Your task to perform on an android device: Clear the cart on walmart.com. Add "lenovo thinkpad" to the cart on walmart.com Image 0: 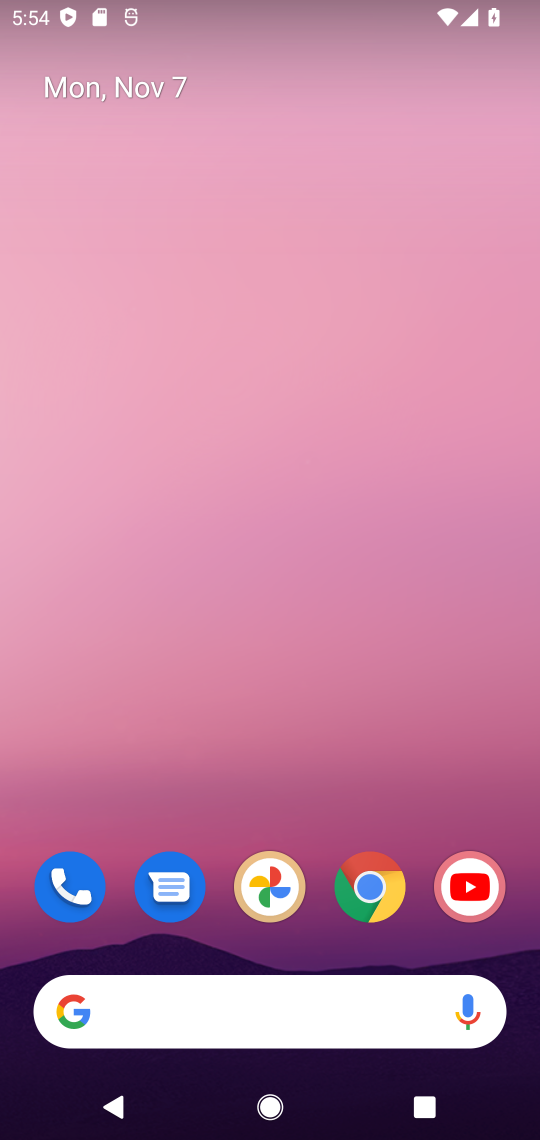
Step 0: click (369, 893)
Your task to perform on an android device: Clear the cart on walmart.com. Add "lenovo thinkpad" to the cart on walmart.com Image 1: 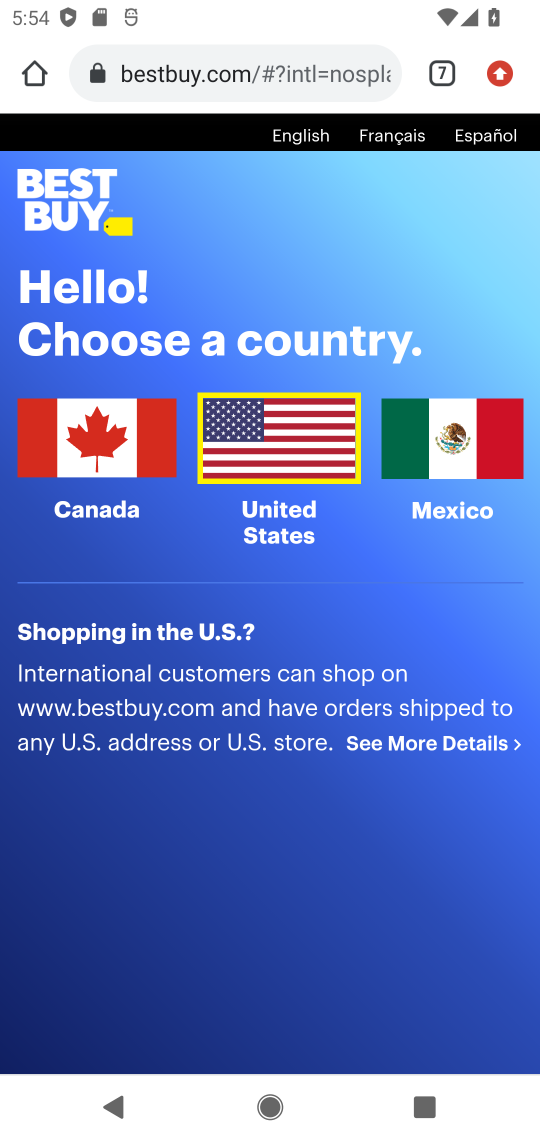
Step 1: click (443, 69)
Your task to perform on an android device: Clear the cart on walmart.com. Add "lenovo thinkpad" to the cart on walmart.com Image 2: 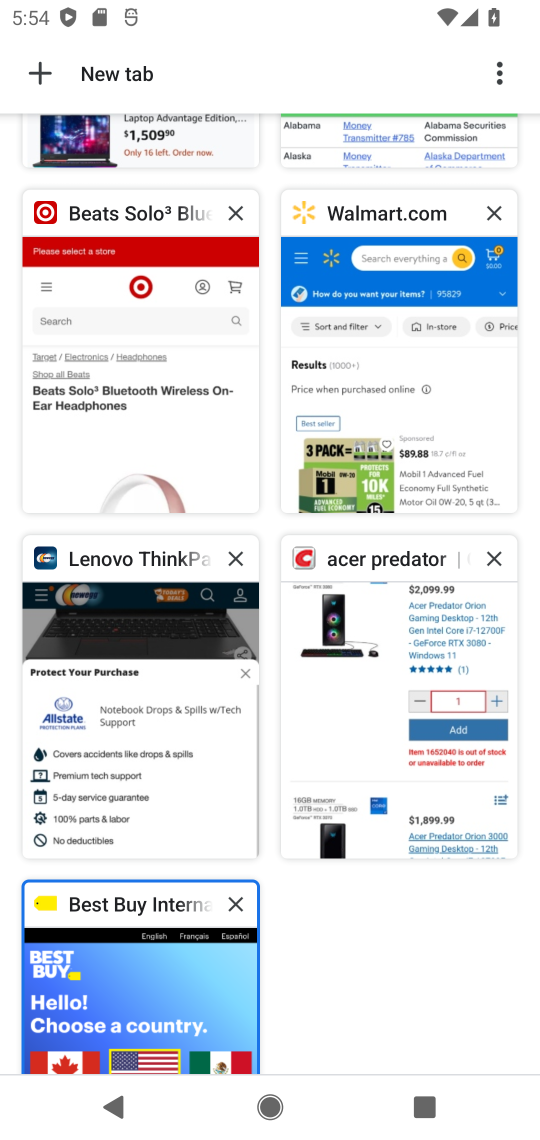
Step 2: click (411, 313)
Your task to perform on an android device: Clear the cart on walmart.com. Add "lenovo thinkpad" to the cart on walmart.com Image 3: 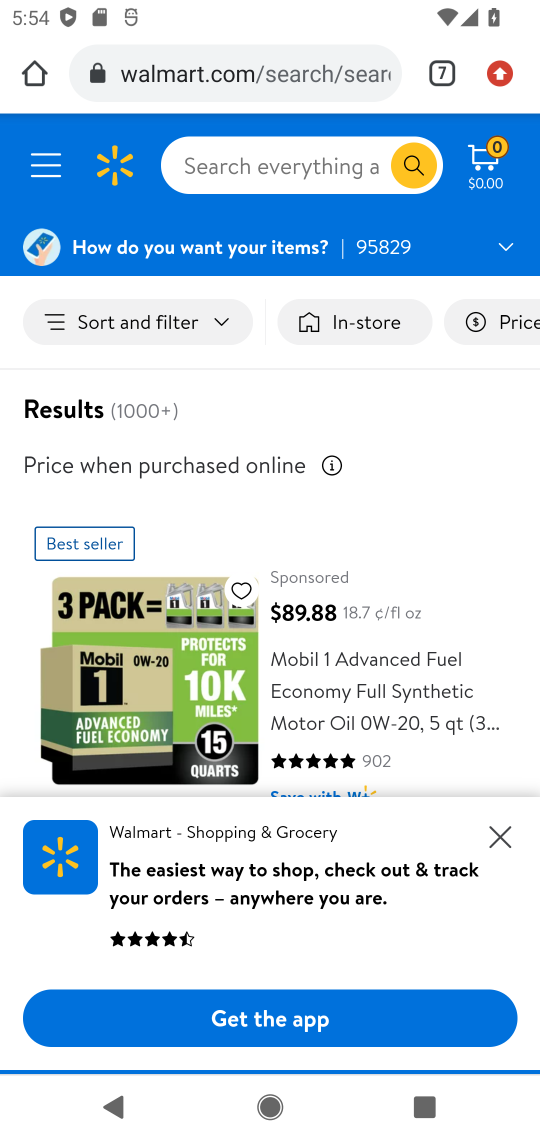
Step 3: click (494, 829)
Your task to perform on an android device: Clear the cart on walmart.com. Add "lenovo thinkpad" to the cart on walmart.com Image 4: 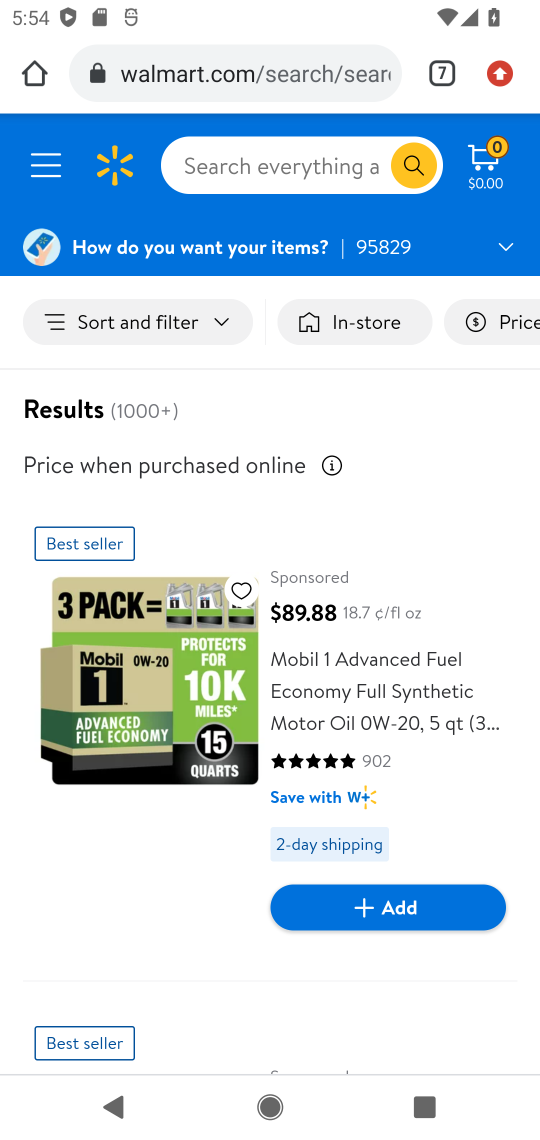
Step 4: click (278, 173)
Your task to perform on an android device: Clear the cart on walmart.com. Add "lenovo thinkpad" to the cart on walmart.com Image 5: 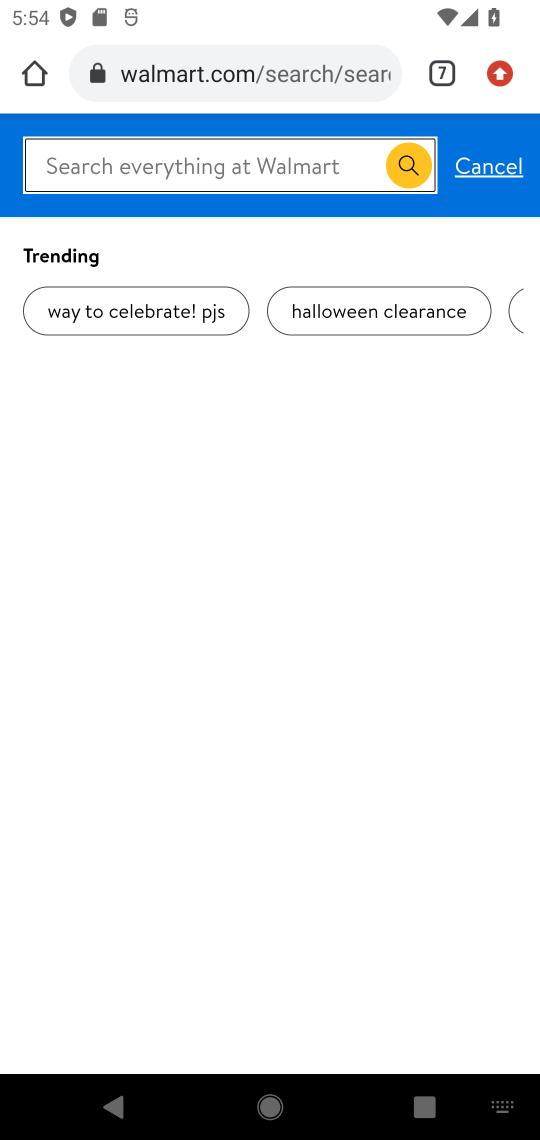
Step 5: type "lenovo thinkpad"
Your task to perform on an android device: Clear the cart on walmart.com. Add "lenovo thinkpad" to the cart on walmart.com Image 6: 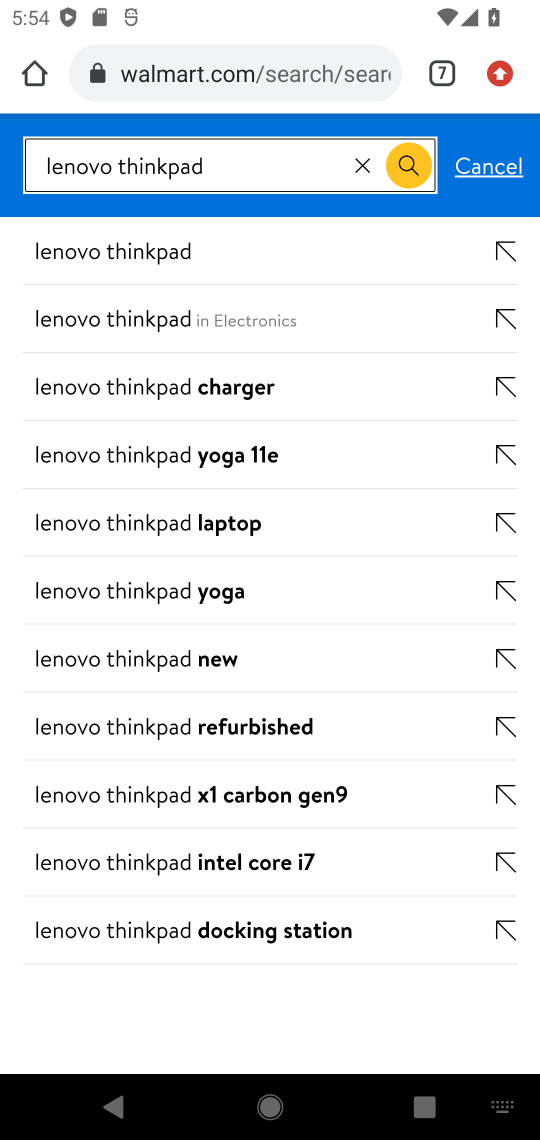
Step 6: click (171, 313)
Your task to perform on an android device: Clear the cart on walmart.com. Add "lenovo thinkpad" to the cart on walmart.com Image 7: 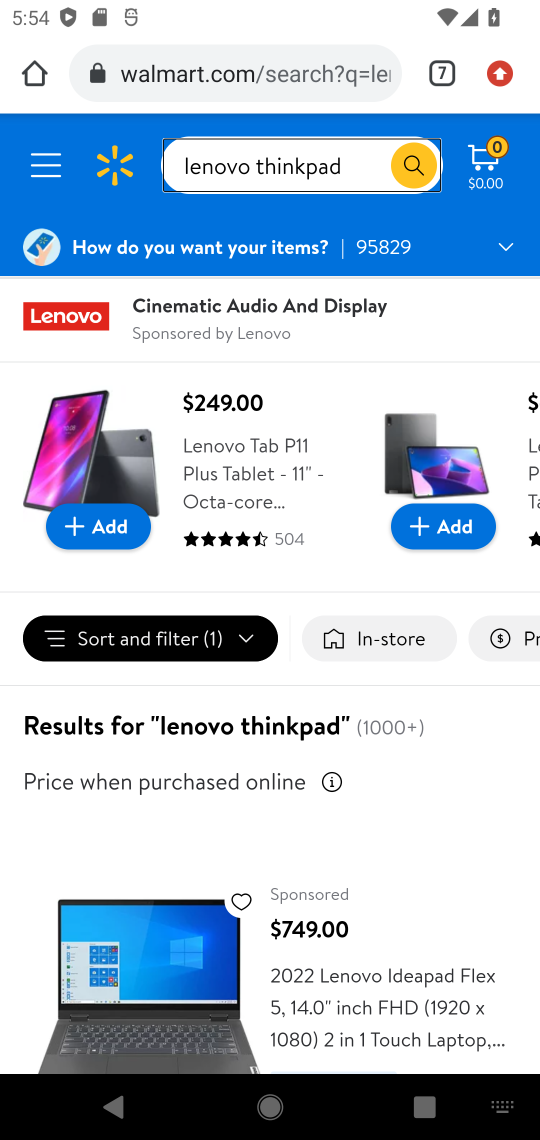
Step 7: click (72, 537)
Your task to perform on an android device: Clear the cart on walmart.com. Add "lenovo thinkpad" to the cart on walmart.com Image 8: 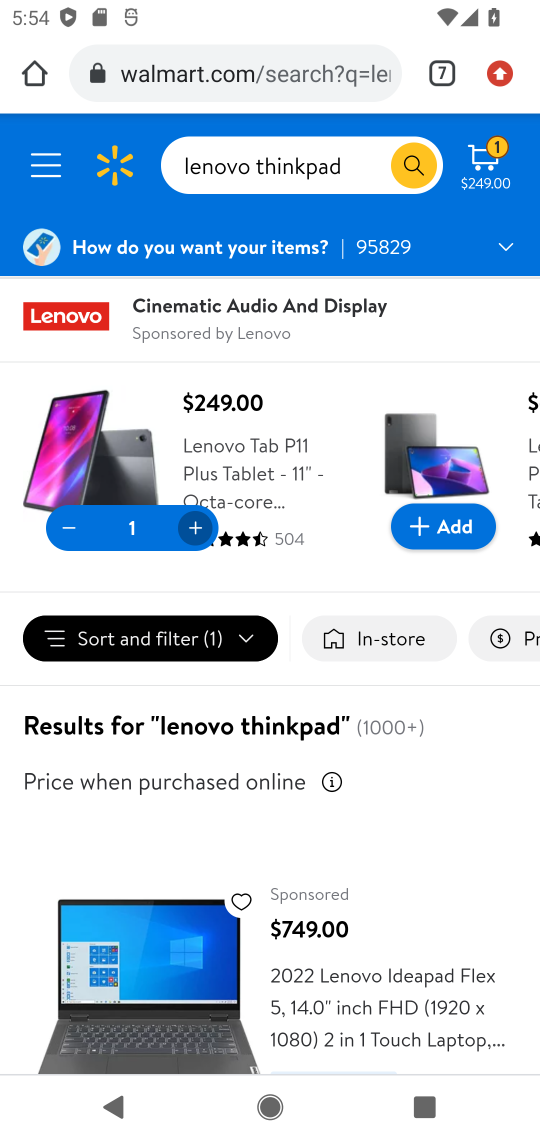
Step 8: task complete